Your task to perform on an android device: open device folders in google photos Image 0: 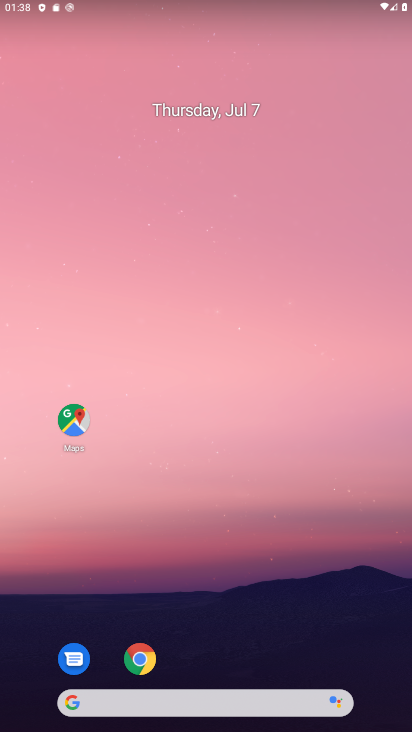
Step 0: drag from (220, 656) to (200, 143)
Your task to perform on an android device: open device folders in google photos Image 1: 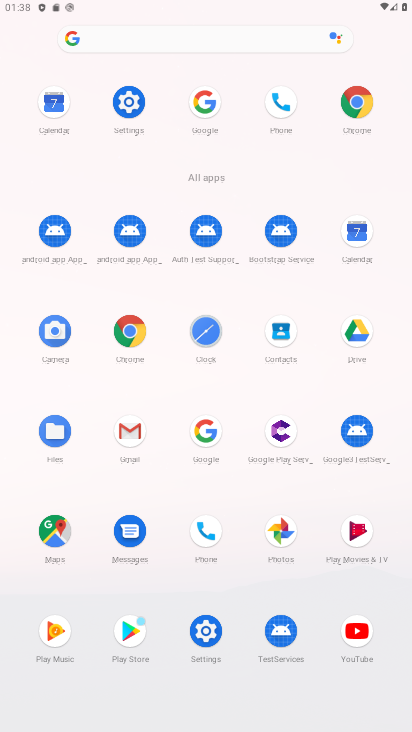
Step 1: click (274, 531)
Your task to perform on an android device: open device folders in google photos Image 2: 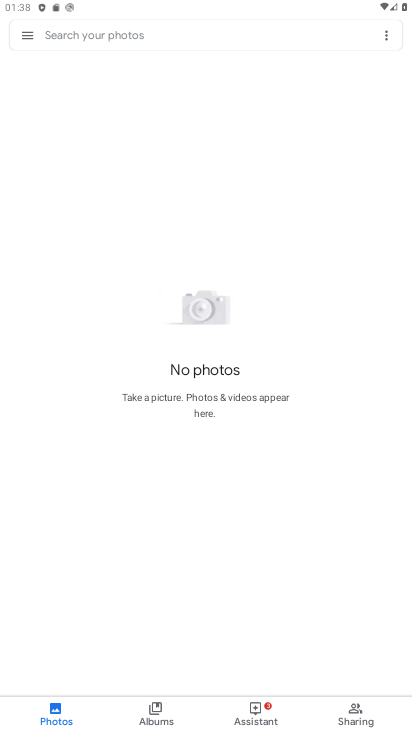
Step 2: click (24, 34)
Your task to perform on an android device: open device folders in google photos Image 3: 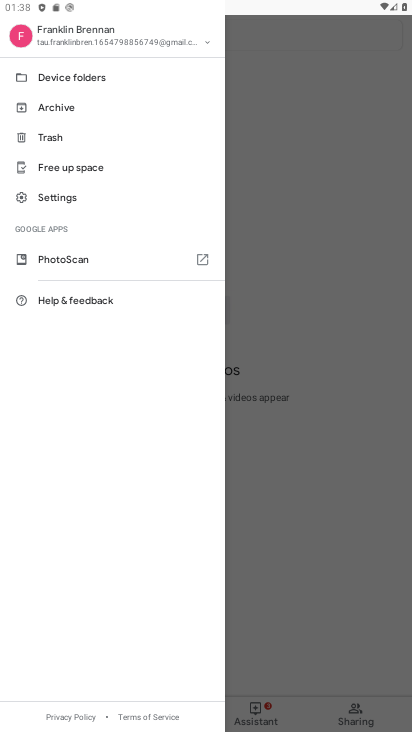
Step 3: click (72, 83)
Your task to perform on an android device: open device folders in google photos Image 4: 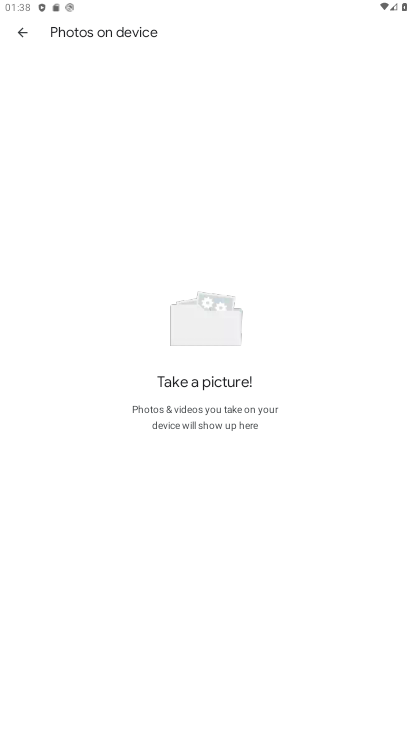
Step 4: task complete